Your task to perform on an android device: Turn off the flashlight Image 0: 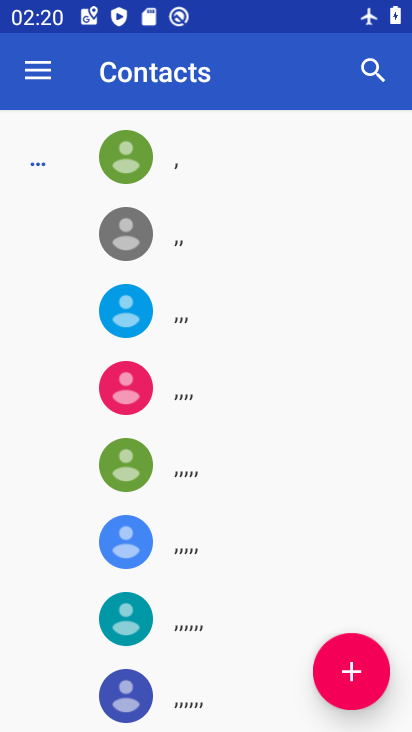
Step 0: press home button
Your task to perform on an android device: Turn off the flashlight Image 1: 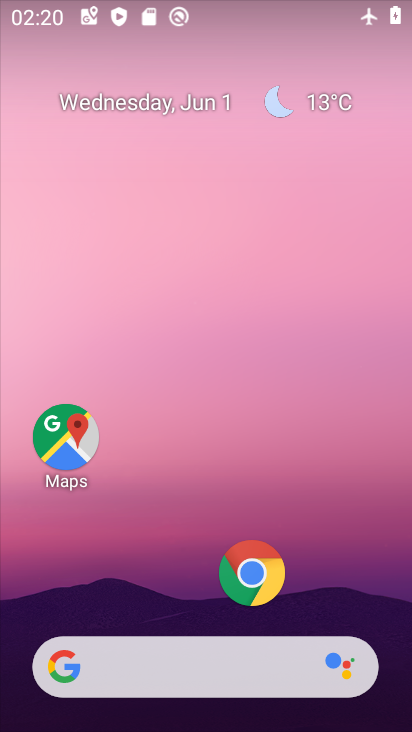
Step 1: drag from (197, 624) to (101, 8)
Your task to perform on an android device: Turn off the flashlight Image 2: 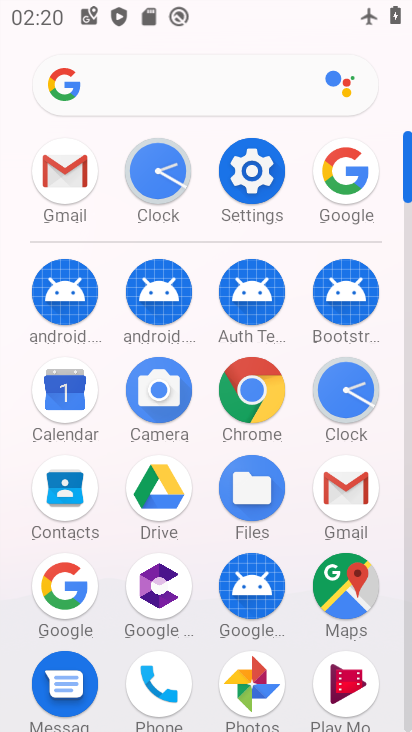
Step 2: click (230, 191)
Your task to perform on an android device: Turn off the flashlight Image 3: 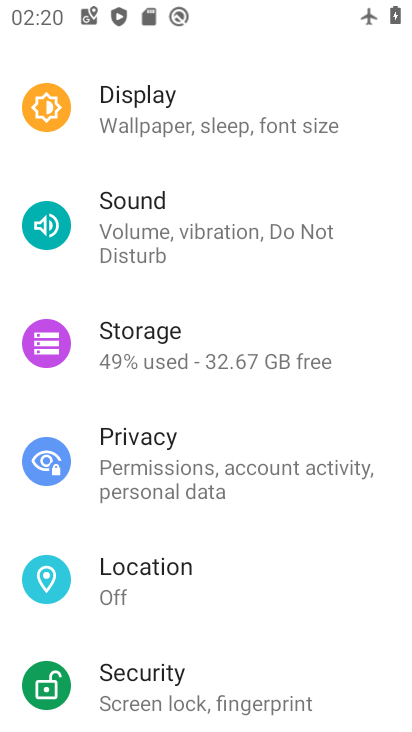
Step 3: task complete